Your task to perform on an android device: Open the web browser Image 0: 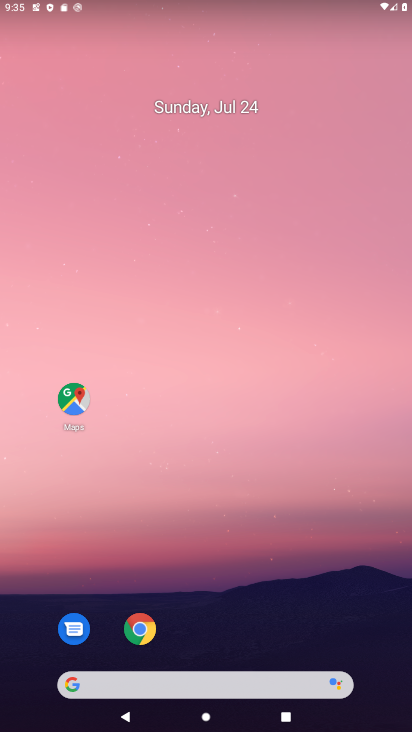
Step 0: task complete